Your task to perform on an android device: Search for vegetarian restaurants on Maps Image 0: 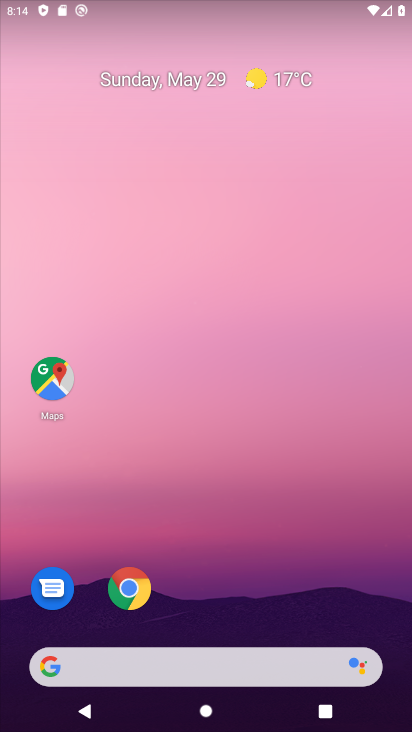
Step 0: click (52, 400)
Your task to perform on an android device: Search for vegetarian restaurants on Maps Image 1: 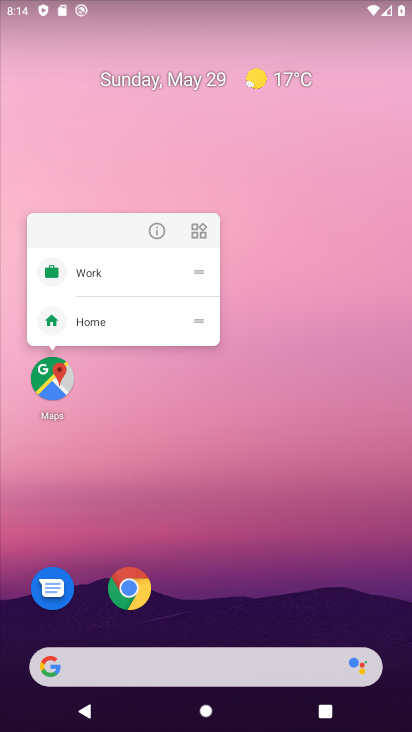
Step 1: click (63, 401)
Your task to perform on an android device: Search for vegetarian restaurants on Maps Image 2: 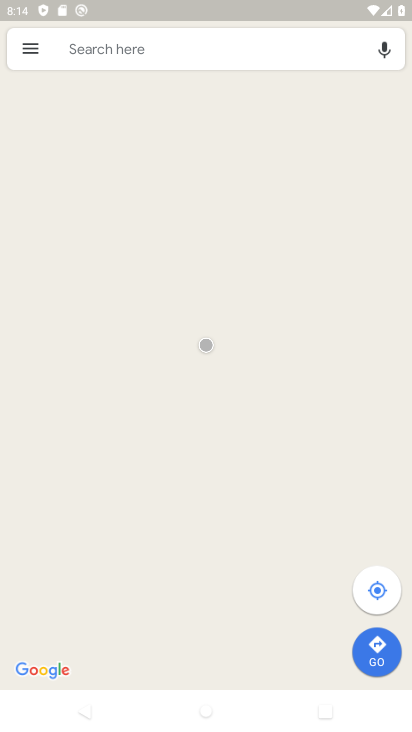
Step 2: click (133, 63)
Your task to perform on an android device: Search for vegetarian restaurants on Maps Image 3: 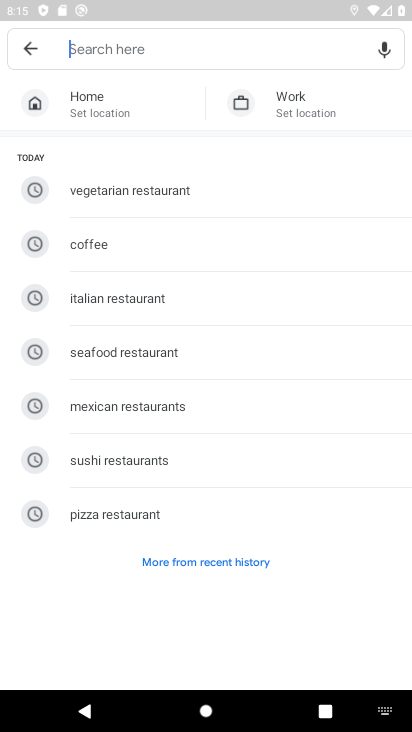
Step 3: type "vegetarian restaurants"
Your task to perform on an android device: Search for vegetarian restaurants on Maps Image 4: 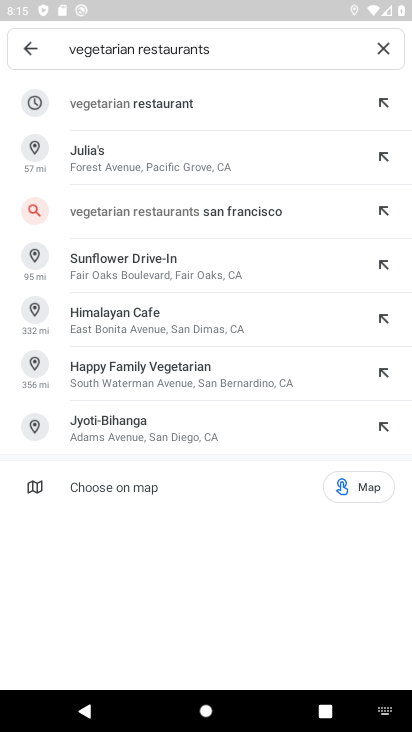
Step 4: click (188, 108)
Your task to perform on an android device: Search for vegetarian restaurants on Maps Image 5: 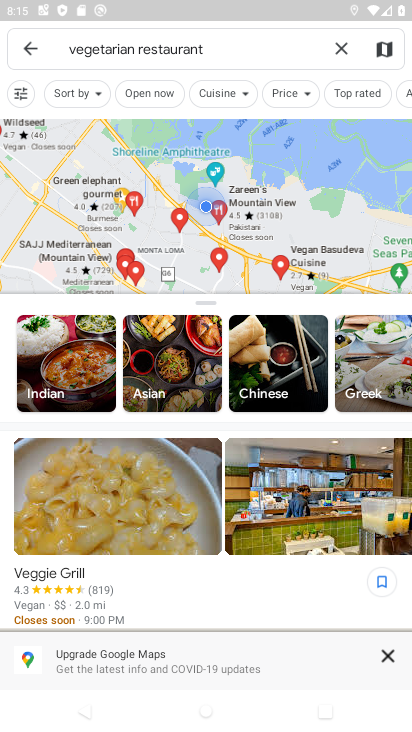
Step 5: click (397, 655)
Your task to perform on an android device: Search for vegetarian restaurants on Maps Image 6: 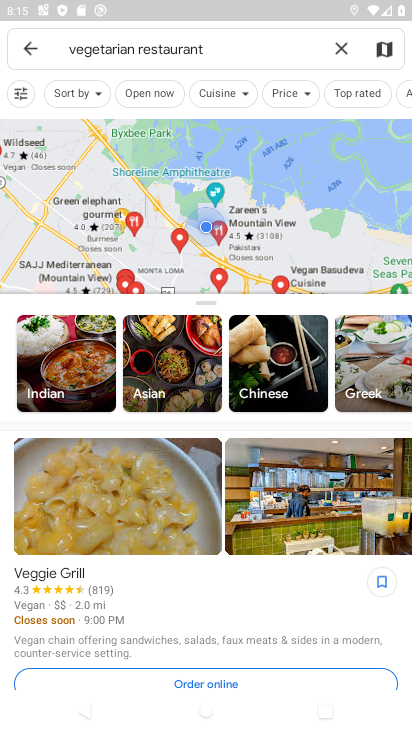
Step 6: task complete